Your task to perform on an android device: Show me recent news Image 0: 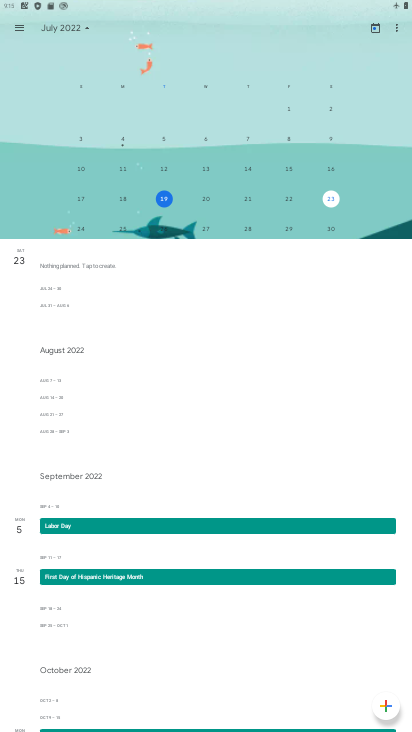
Step 0: press home button
Your task to perform on an android device: Show me recent news Image 1: 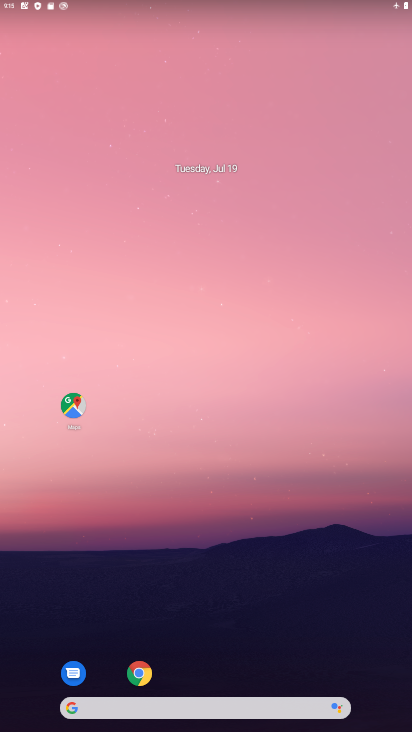
Step 1: drag from (205, 653) to (207, 49)
Your task to perform on an android device: Show me recent news Image 2: 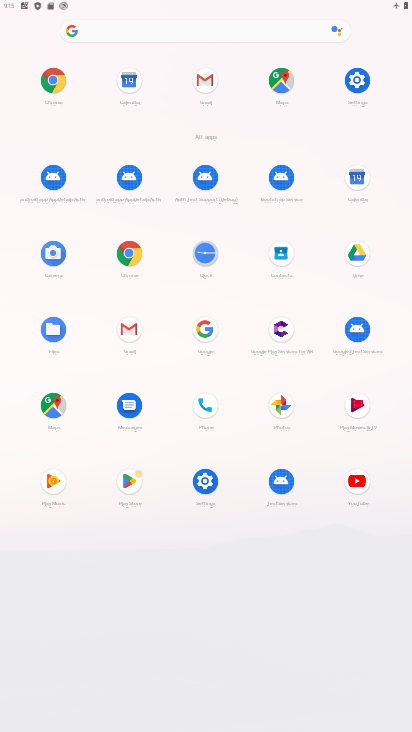
Step 2: click (199, 344)
Your task to perform on an android device: Show me recent news Image 3: 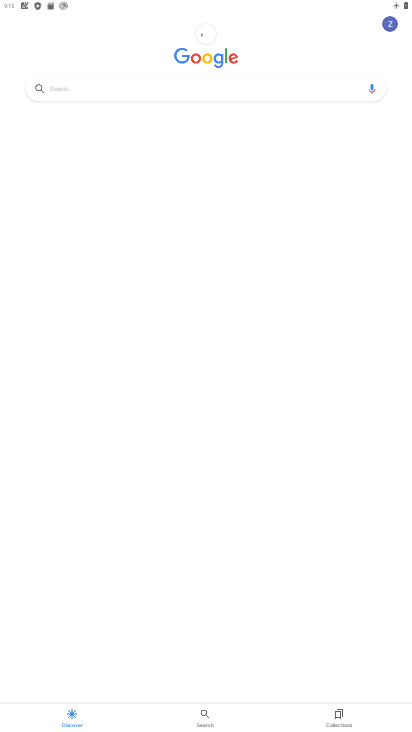
Step 3: click (202, 83)
Your task to perform on an android device: Show me recent news Image 4: 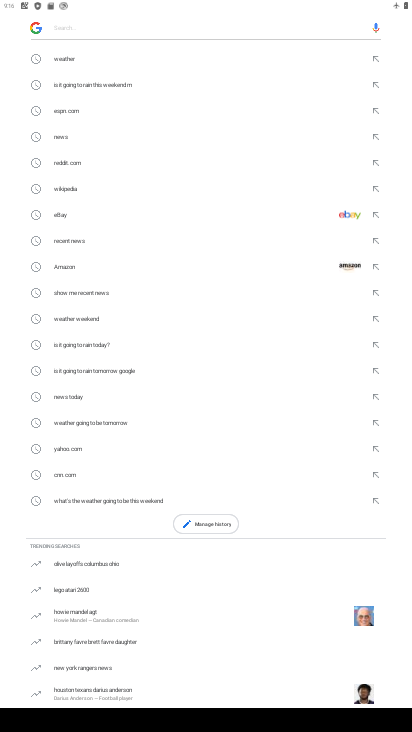
Step 4: type "news"
Your task to perform on an android device: Show me recent news Image 5: 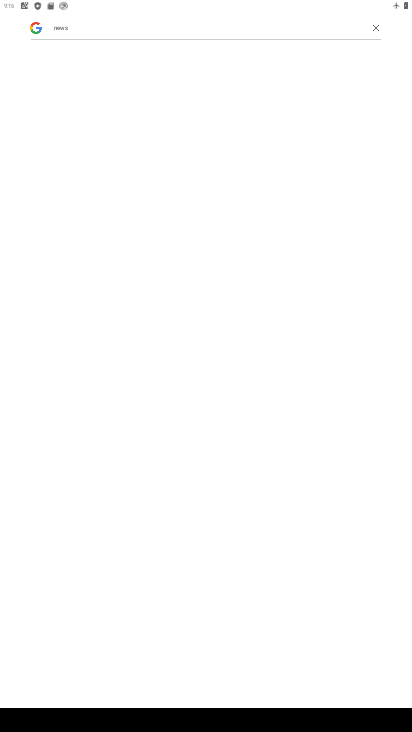
Step 5: task complete